Your task to perform on an android device: Open the calendar and show me this week's events? Image 0: 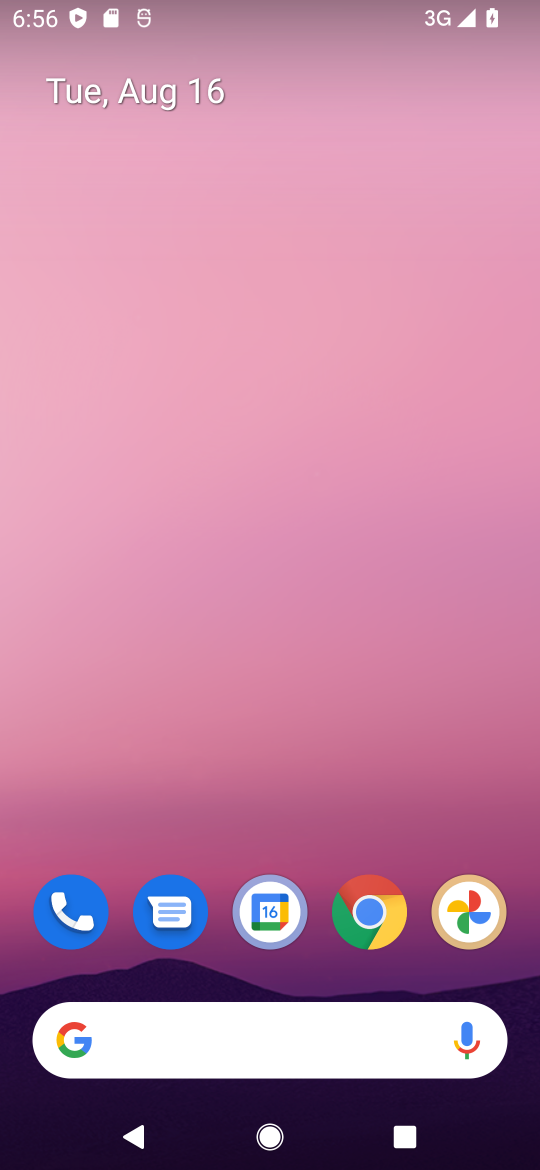
Step 0: drag from (410, 952) to (390, 180)
Your task to perform on an android device: Open the calendar and show me this week's events? Image 1: 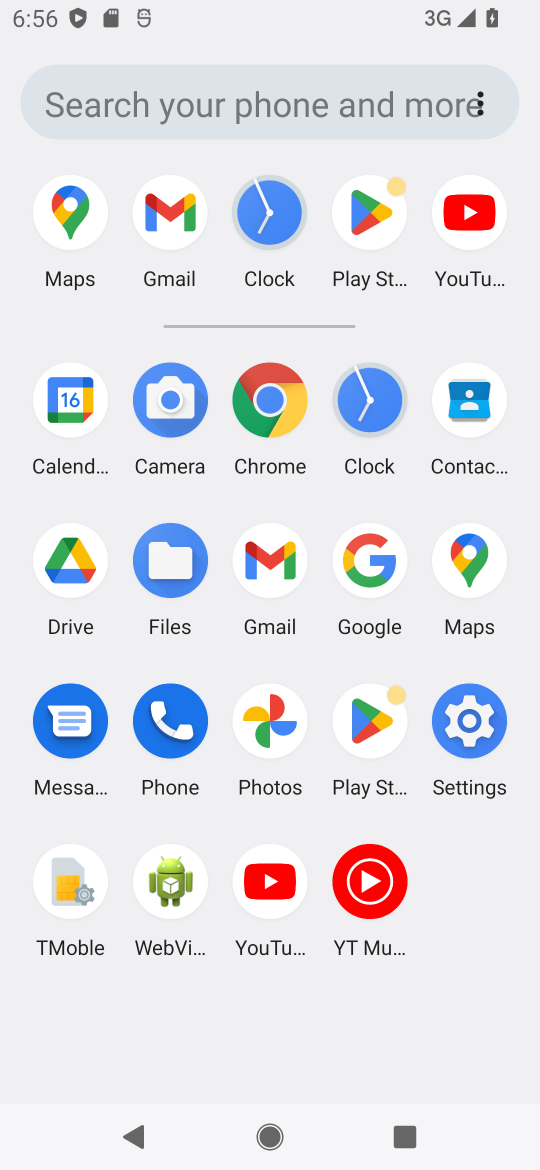
Step 1: click (64, 395)
Your task to perform on an android device: Open the calendar and show me this week's events? Image 2: 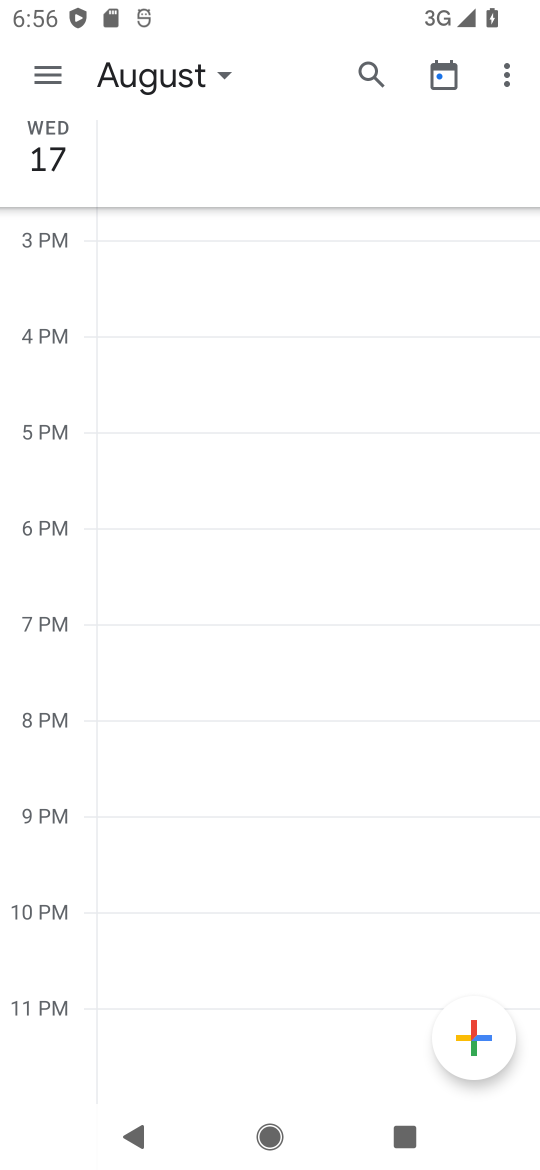
Step 2: click (52, 79)
Your task to perform on an android device: Open the calendar and show me this week's events? Image 3: 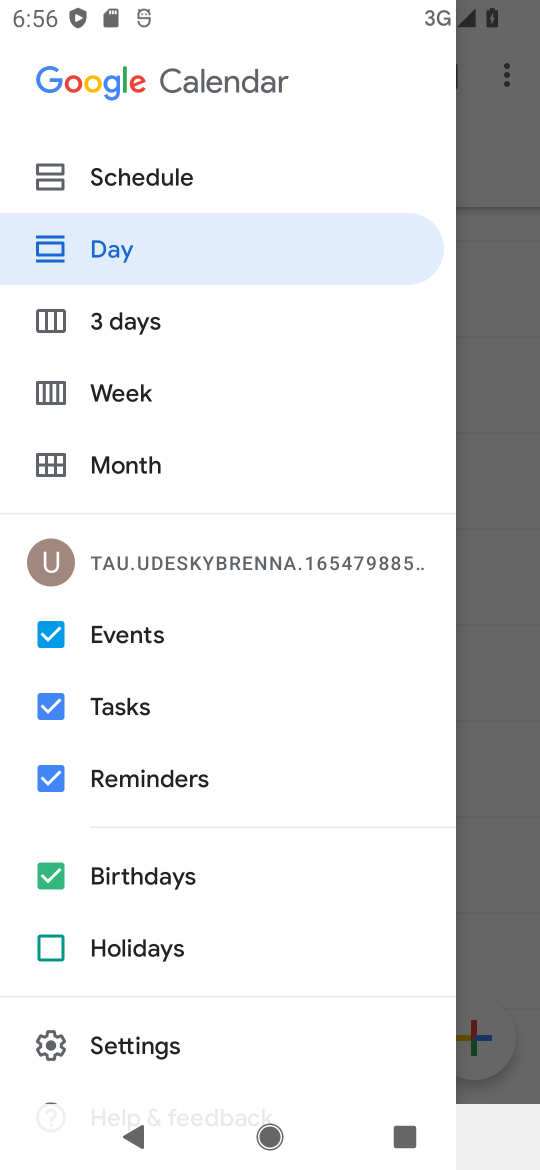
Step 3: click (124, 395)
Your task to perform on an android device: Open the calendar and show me this week's events? Image 4: 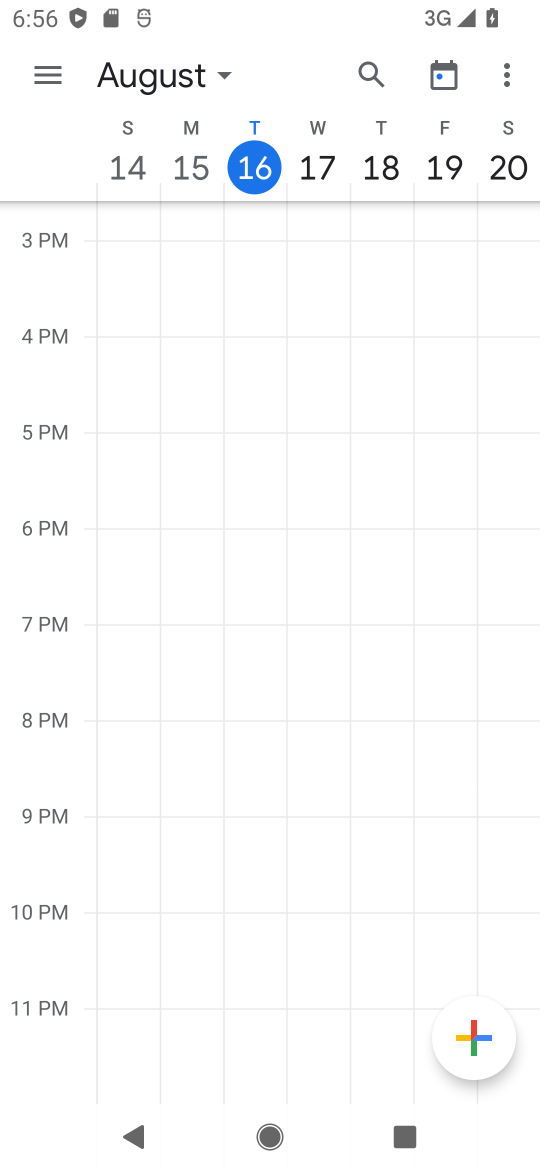
Step 4: task complete